Your task to perform on an android device: Open the calendar and show me this week's events Image 0: 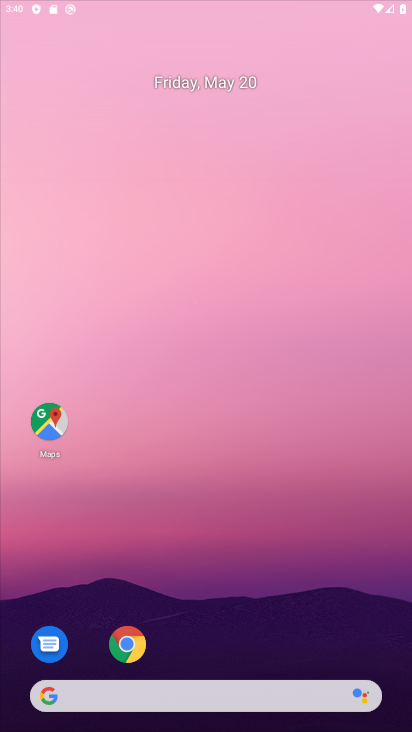
Step 0: click (53, 429)
Your task to perform on an android device: Open the calendar and show me this week's events Image 1: 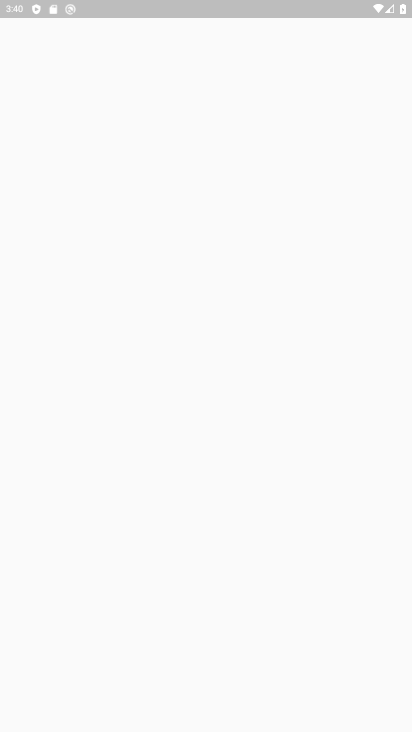
Step 1: press home button
Your task to perform on an android device: Open the calendar and show me this week's events Image 2: 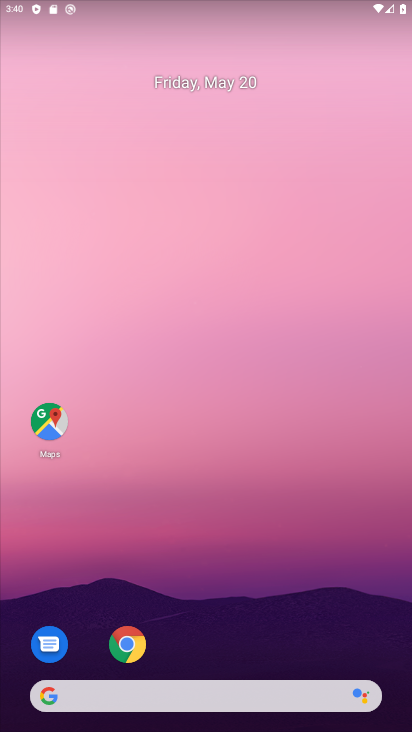
Step 2: drag from (315, 631) to (372, 202)
Your task to perform on an android device: Open the calendar and show me this week's events Image 3: 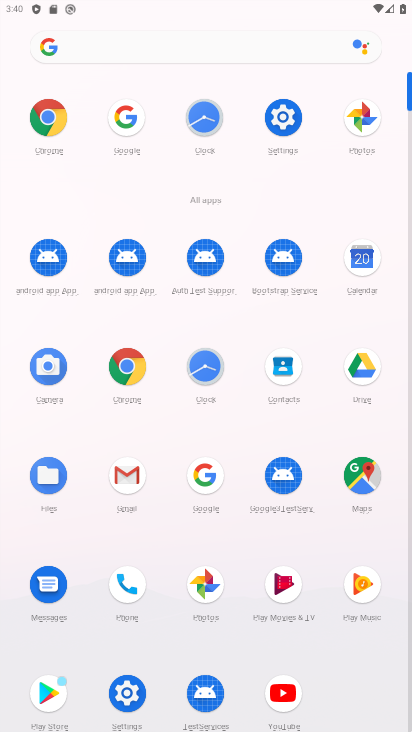
Step 3: click (361, 264)
Your task to perform on an android device: Open the calendar and show me this week's events Image 4: 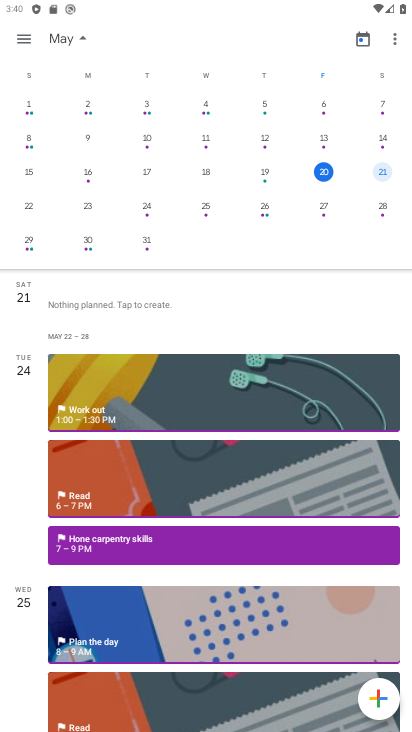
Step 4: click (381, 170)
Your task to perform on an android device: Open the calendar and show me this week's events Image 5: 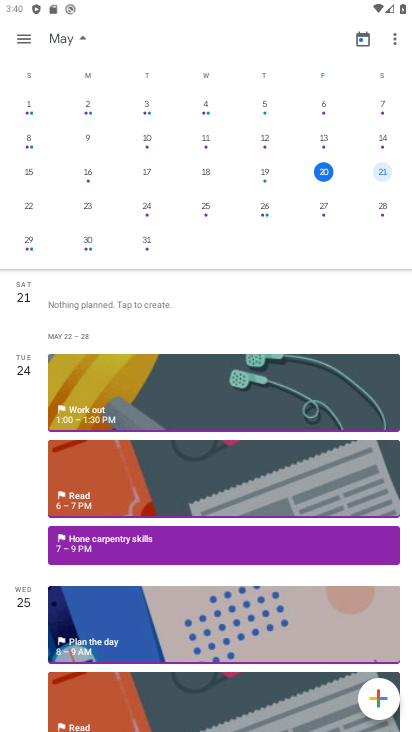
Step 5: click (257, 177)
Your task to perform on an android device: Open the calendar and show me this week's events Image 6: 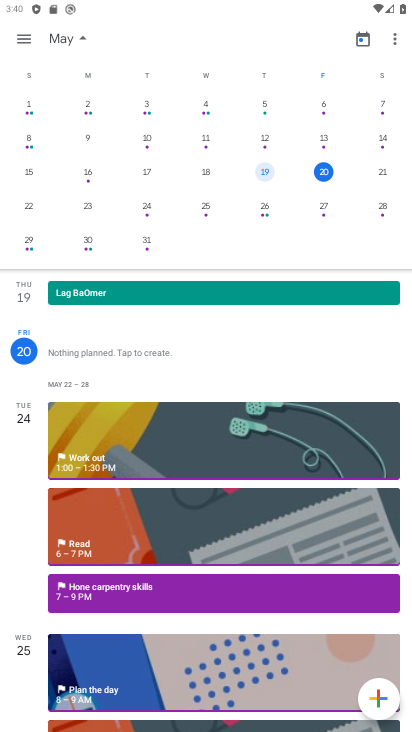
Step 6: click (203, 174)
Your task to perform on an android device: Open the calendar and show me this week's events Image 7: 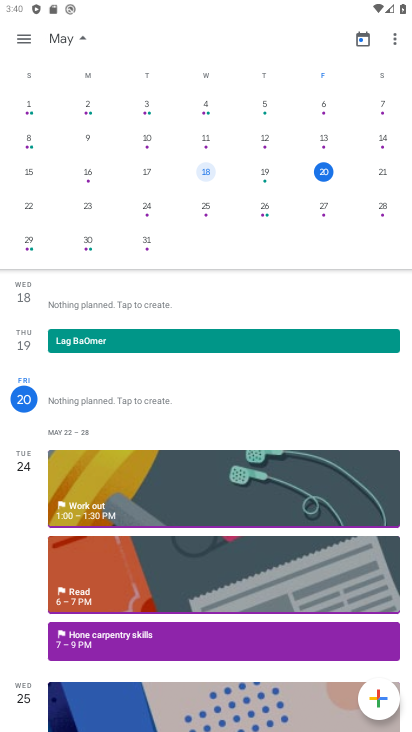
Step 7: click (142, 169)
Your task to perform on an android device: Open the calendar and show me this week's events Image 8: 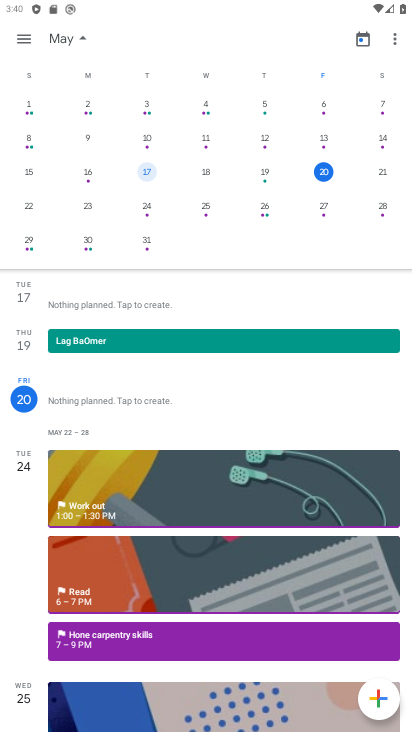
Step 8: click (83, 177)
Your task to perform on an android device: Open the calendar and show me this week's events Image 9: 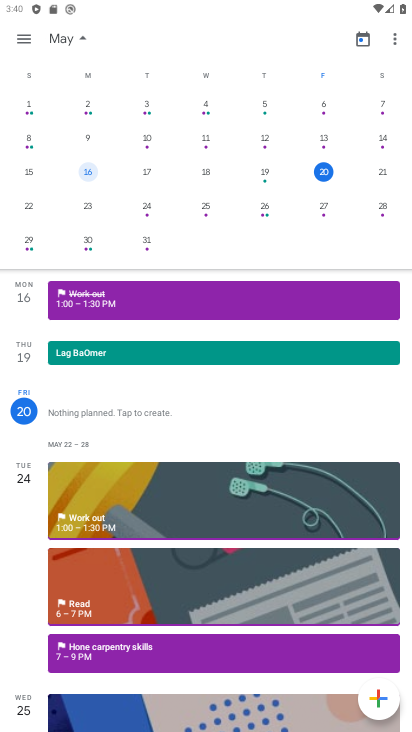
Step 9: click (22, 178)
Your task to perform on an android device: Open the calendar and show me this week's events Image 10: 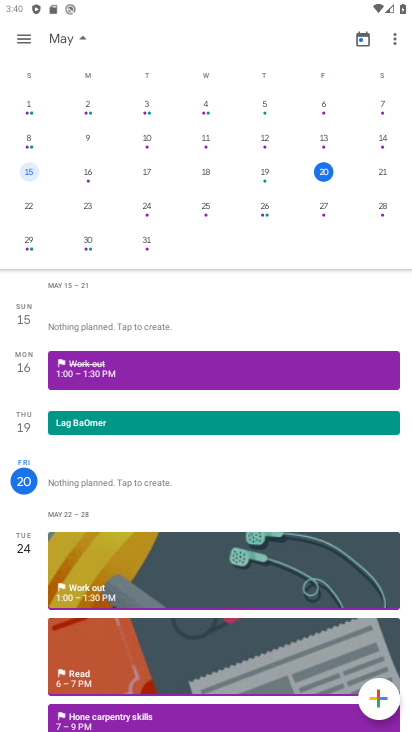
Step 10: task complete